Your task to perform on an android device: clear all cookies in the chrome app Image 0: 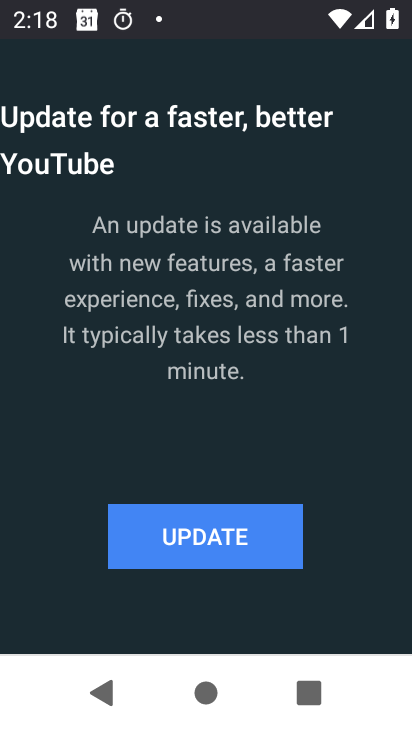
Step 0: press home button
Your task to perform on an android device: clear all cookies in the chrome app Image 1: 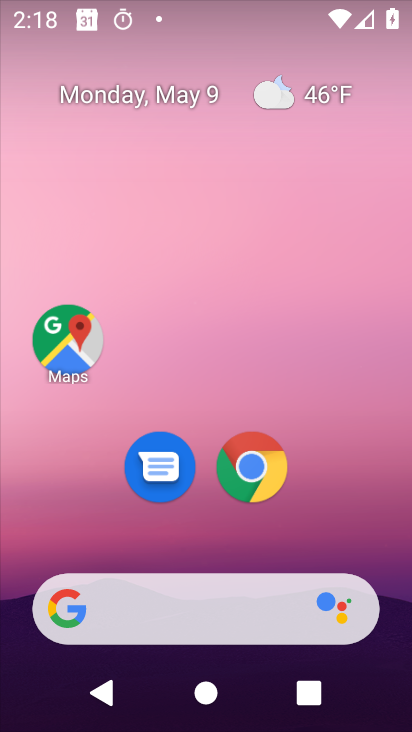
Step 1: drag from (319, 486) to (323, 36)
Your task to perform on an android device: clear all cookies in the chrome app Image 2: 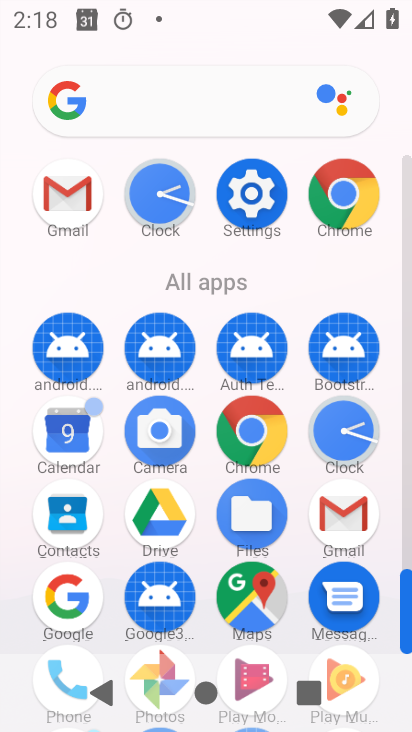
Step 2: click (234, 439)
Your task to perform on an android device: clear all cookies in the chrome app Image 3: 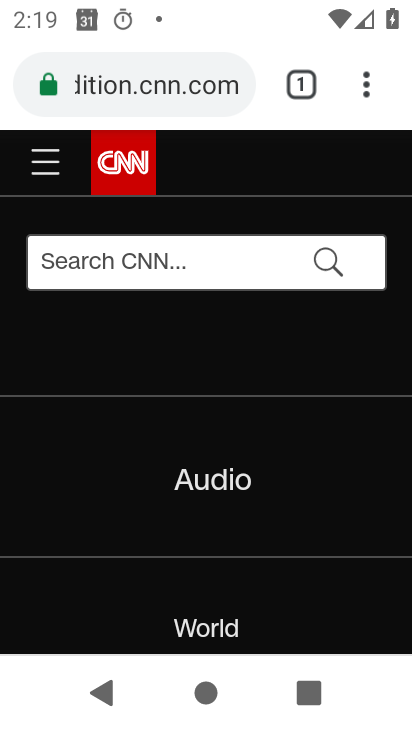
Step 3: drag from (365, 79) to (96, 407)
Your task to perform on an android device: clear all cookies in the chrome app Image 4: 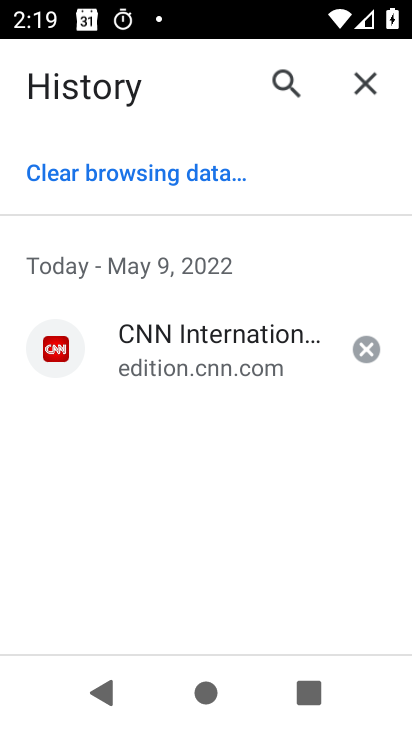
Step 4: click (187, 178)
Your task to perform on an android device: clear all cookies in the chrome app Image 5: 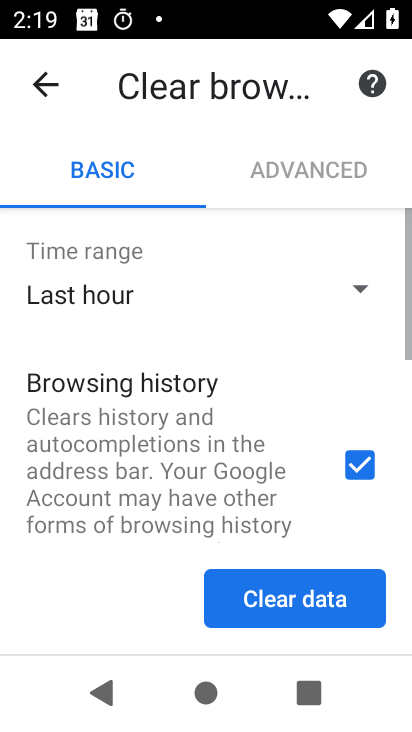
Step 5: click (187, 482)
Your task to perform on an android device: clear all cookies in the chrome app Image 6: 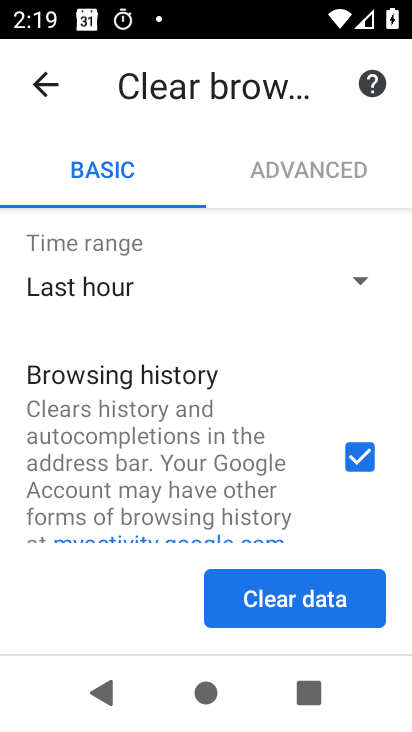
Step 6: click (136, 278)
Your task to perform on an android device: clear all cookies in the chrome app Image 7: 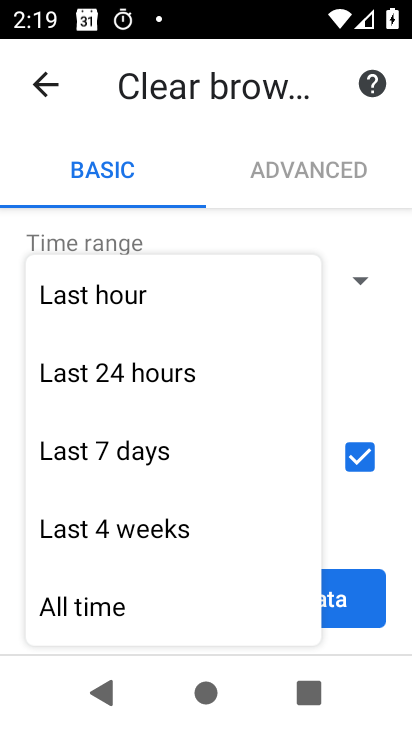
Step 7: click (108, 602)
Your task to perform on an android device: clear all cookies in the chrome app Image 8: 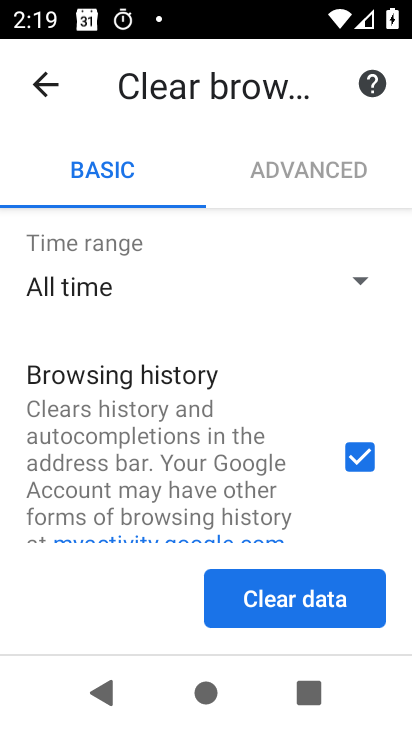
Step 8: click (287, 604)
Your task to perform on an android device: clear all cookies in the chrome app Image 9: 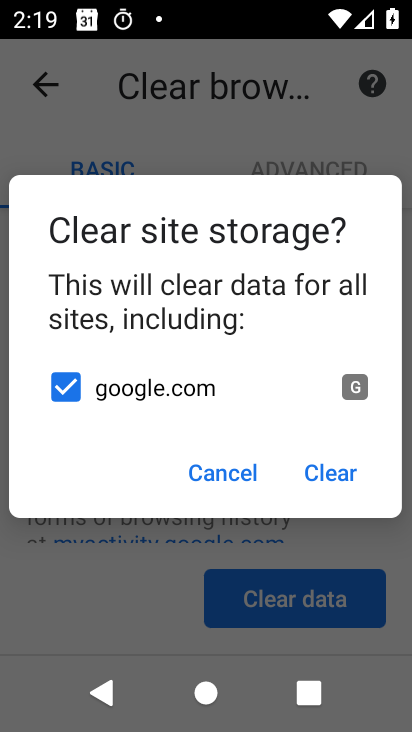
Step 9: click (329, 472)
Your task to perform on an android device: clear all cookies in the chrome app Image 10: 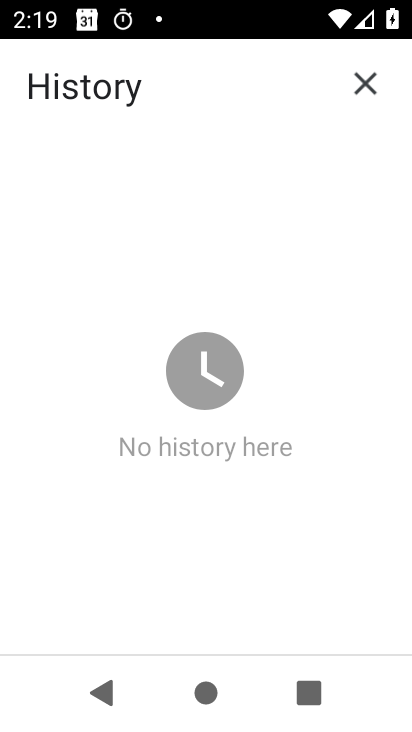
Step 10: task complete